Your task to perform on an android device: Open the calendar app, open the side menu, and click the "Day" option Image 0: 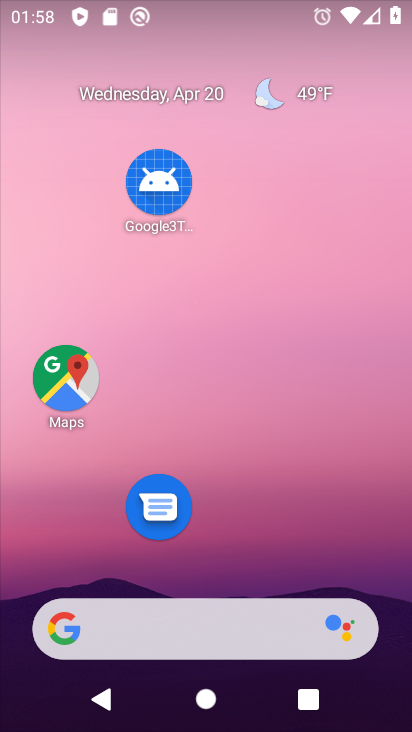
Step 0: drag from (244, 494) to (79, 11)
Your task to perform on an android device: Open the calendar app, open the side menu, and click the "Day" option Image 1: 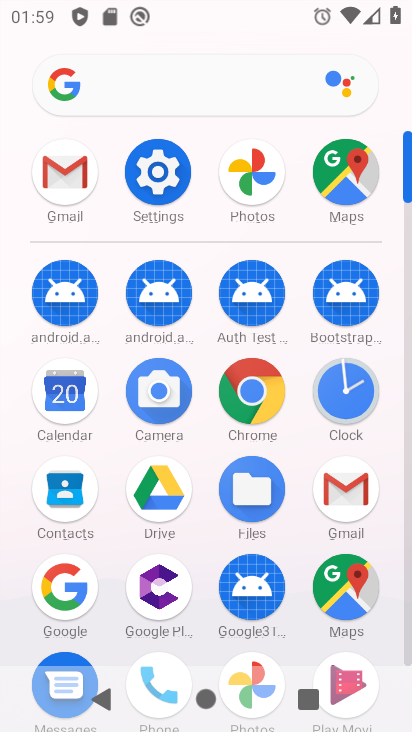
Step 1: click (66, 390)
Your task to perform on an android device: Open the calendar app, open the side menu, and click the "Day" option Image 2: 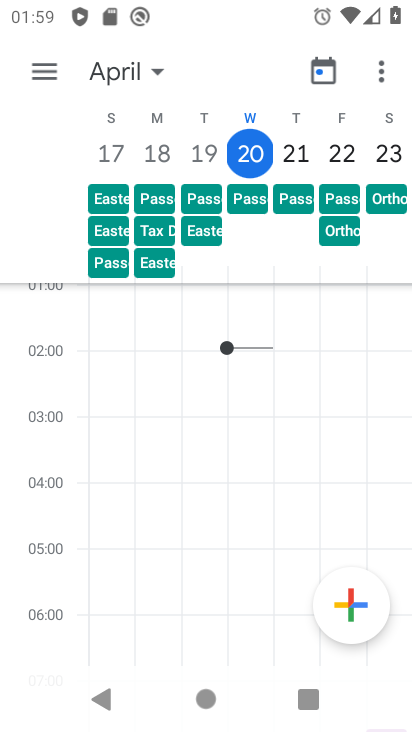
Step 2: click (48, 68)
Your task to perform on an android device: Open the calendar app, open the side menu, and click the "Day" option Image 3: 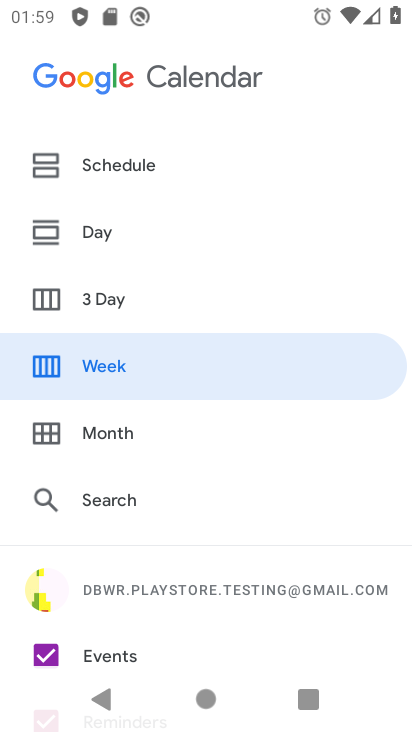
Step 3: click (95, 226)
Your task to perform on an android device: Open the calendar app, open the side menu, and click the "Day" option Image 4: 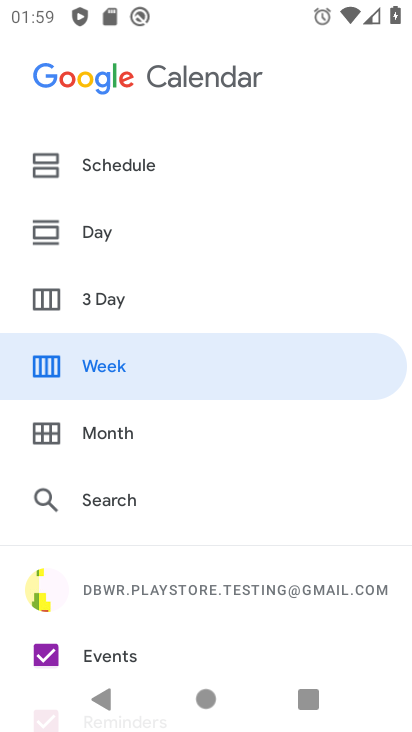
Step 4: click (99, 227)
Your task to perform on an android device: Open the calendar app, open the side menu, and click the "Day" option Image 5: 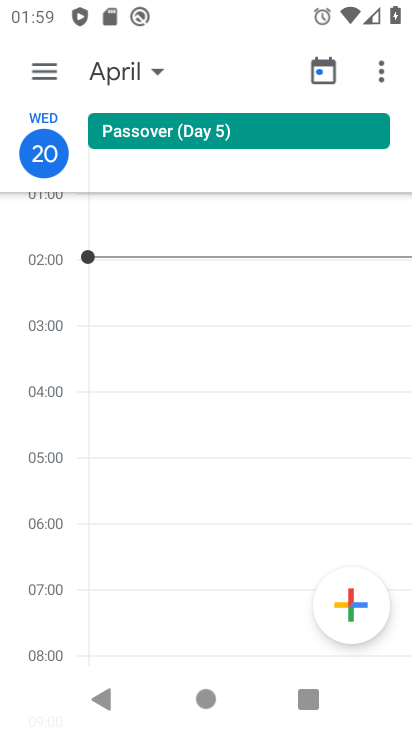
Step 5: task complete